Your task to perform on an android device: toggle airplane mode Image 0: 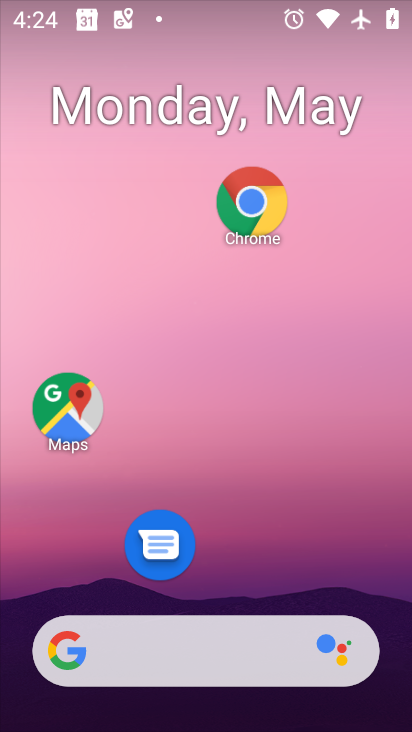
Step 0: drag from (251, 537) to (275, 165)
Your task to perform on an android device: toggle airplane mode Image 1: 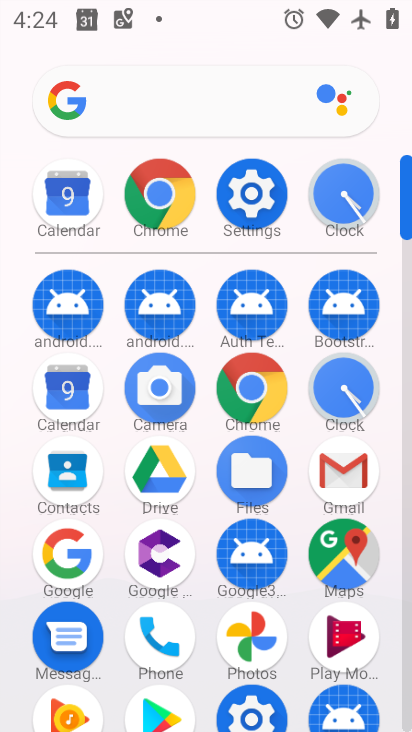
Step 1: click (249, 212)
Your task to perform on an android device: toggle airplane mode Image 2: 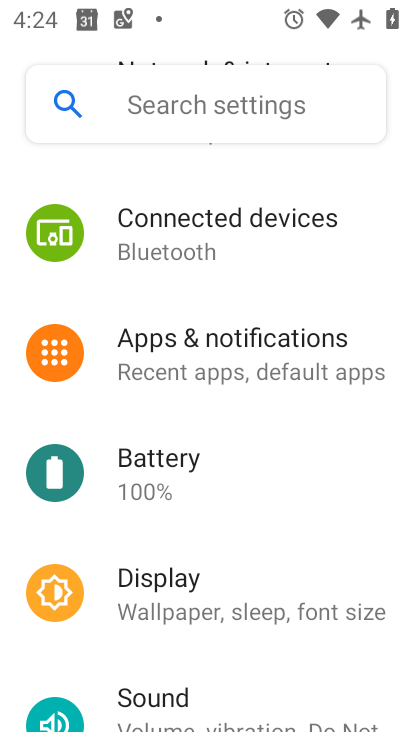
Step 2: drag from (211, 268) to (219, 518)
Your task to perform on an android device: toggle airplane mode Image 3: 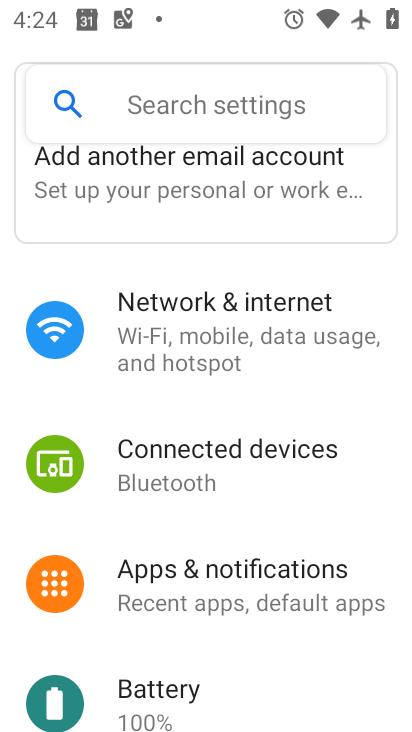
Step 3: click (213, 353)
Your task to perform on an android device: toggle airplane mode Image 4: 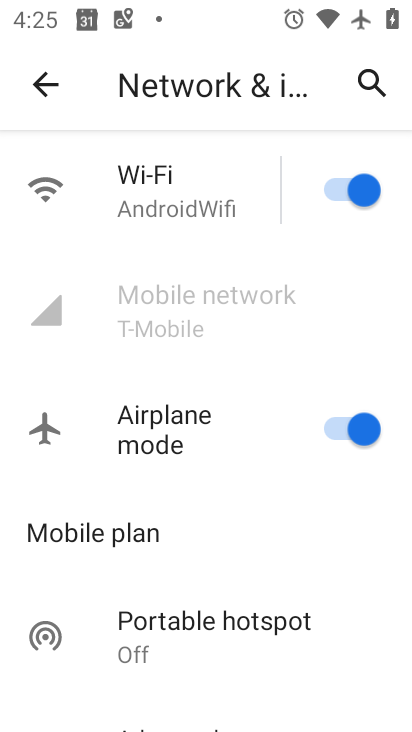
Step 4: click (337, 426)
Your task to perform on an android device: toggle airplane mode Image 5: 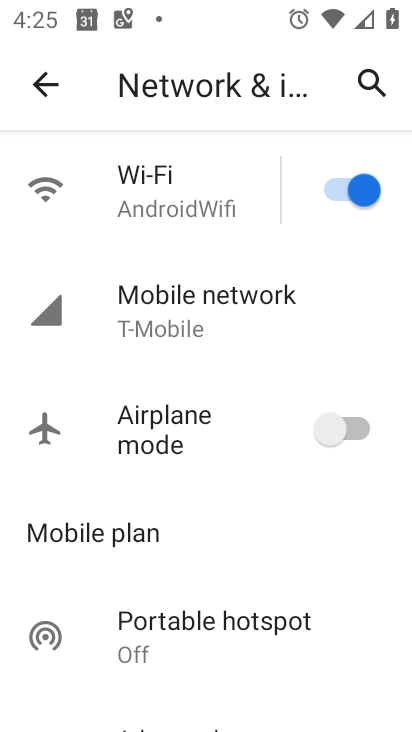
Step 5: task complete